Your task to perform on an android device: Go to sound settings Image 0: 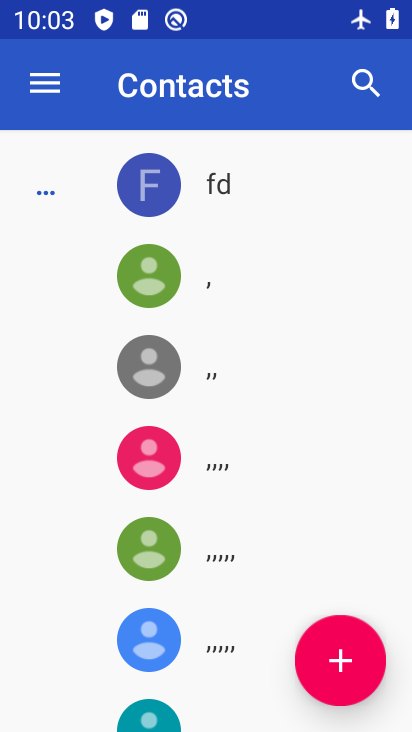
Step 0: press home button
Your task to perform on an android device: Go to sound settings Image 1: 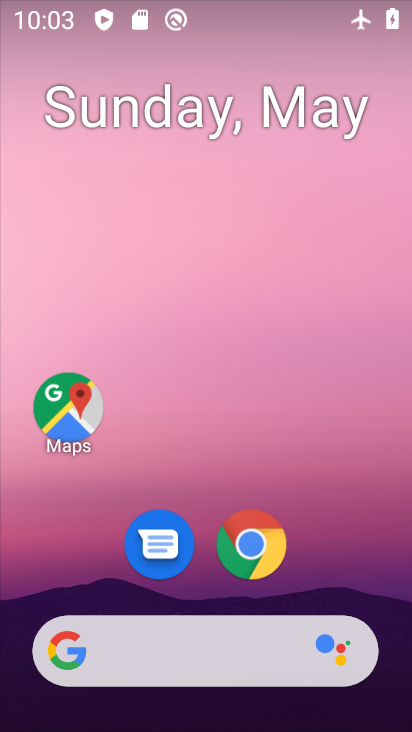
Step 1: drag from (348, 449) to (354, 142)
Your task to perform on an android device: Go to sound settings Image 2: 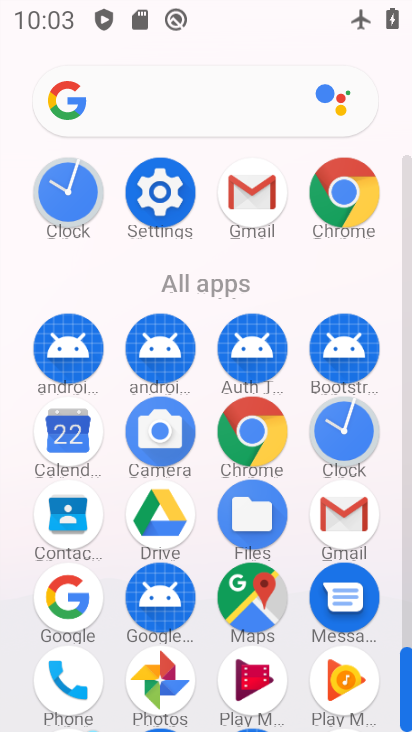
Step 2: click (159, 200)
Your task to perform on an android device: Go to sound settings Image 3: 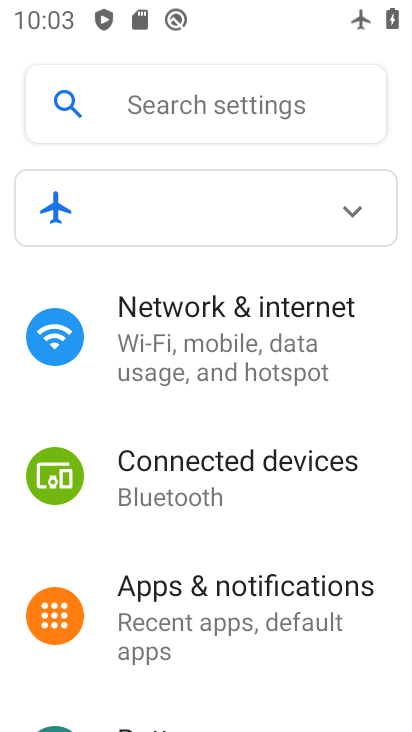
Step 3: drag from (219, 686) to (245, 259)
Your task to perform on an android device: Go to sound settings Image 4: 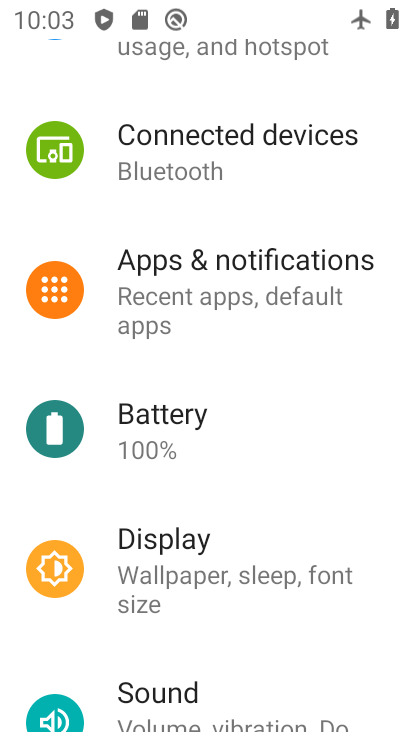
Step 4: click (218, 682)
Your task to perform on an android device: Go to sound settings Image 5: 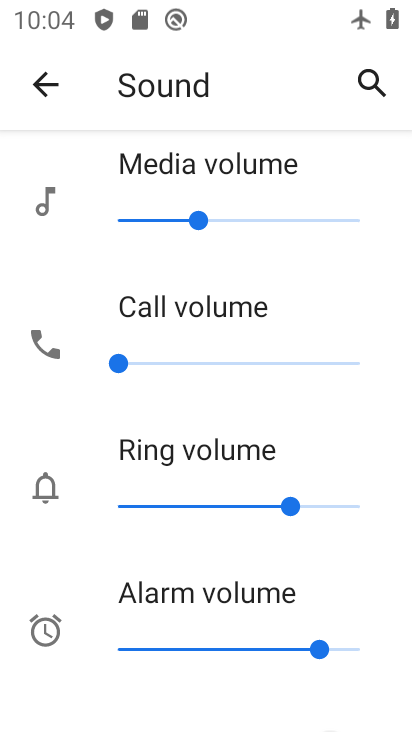
Step 5: task complete